Your task to perform on an android device: Do I have any events tomorrow? Image 0: 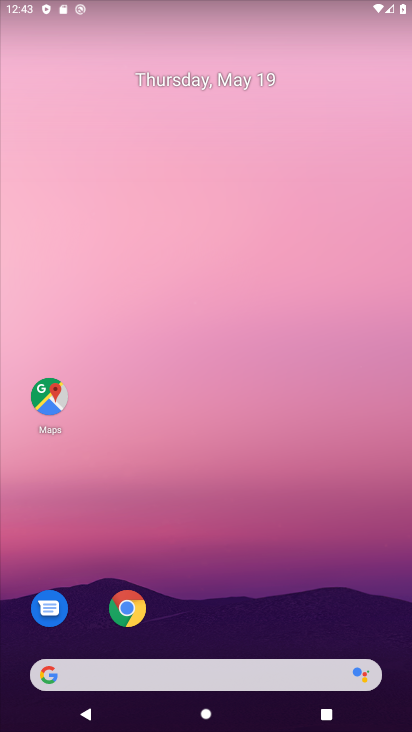
Step 0: drag from (243, 632) to (332, 13)
Your task to perform on an android device: Do I have any events tomorrow? Image 1: 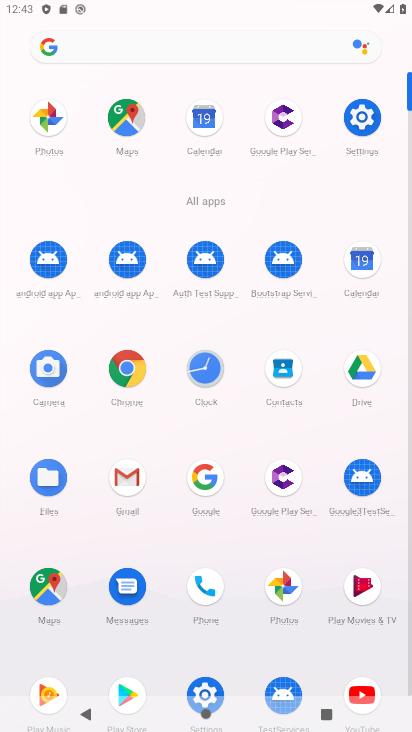
Step 1: click (373, 264)
Your task to perform on an android device: Do I have any events tomorrow? Image 2: 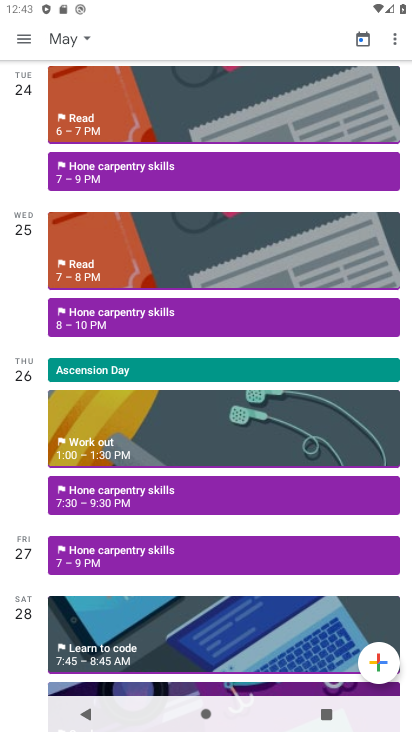
Step 2: drag from (78, 108) to (36, 551)
Your task to perform on an android device: Do I have any events tomorrow? Image 3: 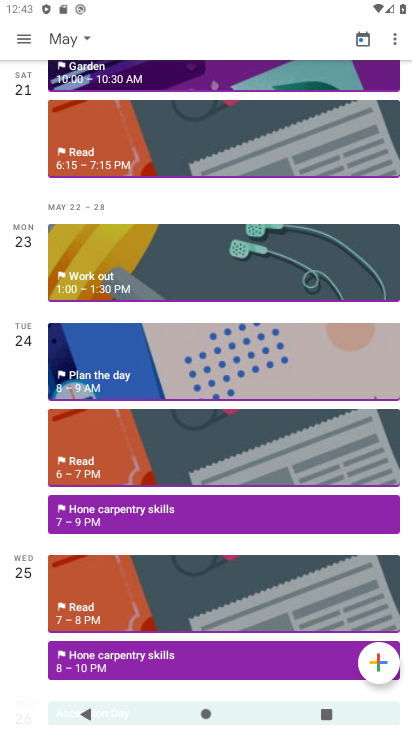
Step 3: click (28, 41)
Your task to perform on an android device: Do I have any events tomorrow? Image 4: 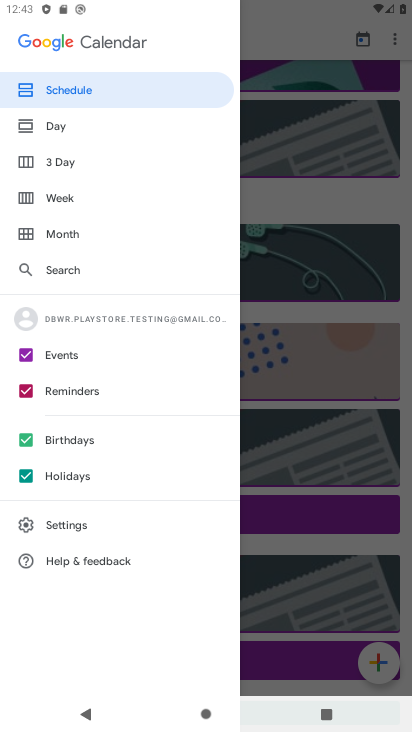
Step 4: click (84, 391)
Your task to perform on an android device: Do I have any events tomorrow? Image 5: 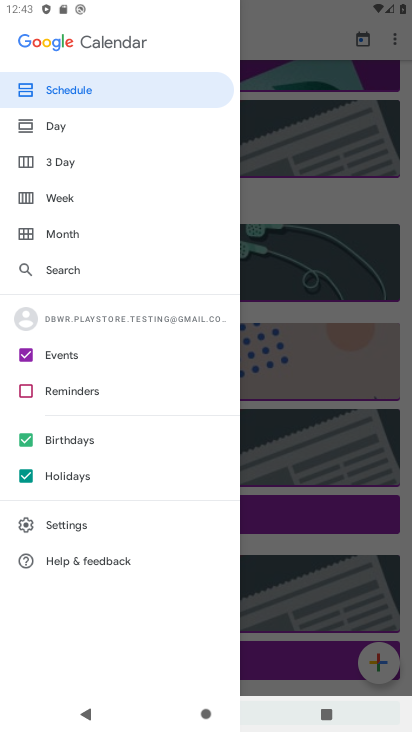
Step 5: click (78, 442)
Your task to perform on an android device: Do I have any events tomorrow? Image 6: 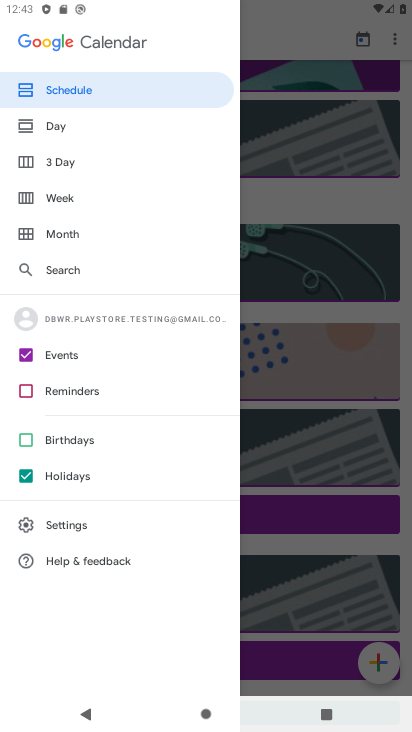
Step 6: click (69, 487)
Your task to perform on an android device: Do I have any events tomorrow? Image 7: 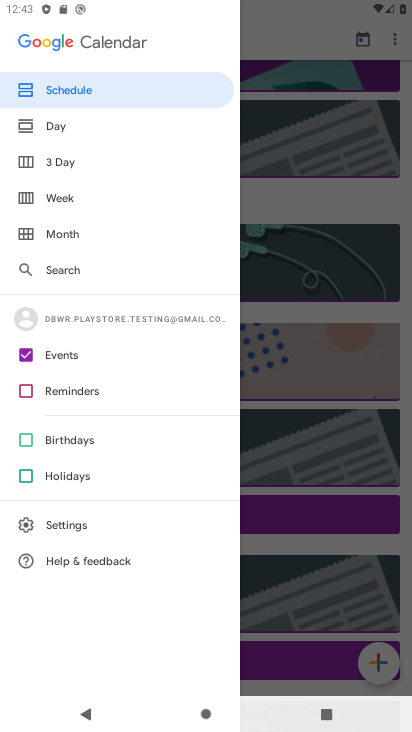
Step 7: click (55, 156)
Your task to perform on an android device: Do I have any events tomorrow? Image 8: 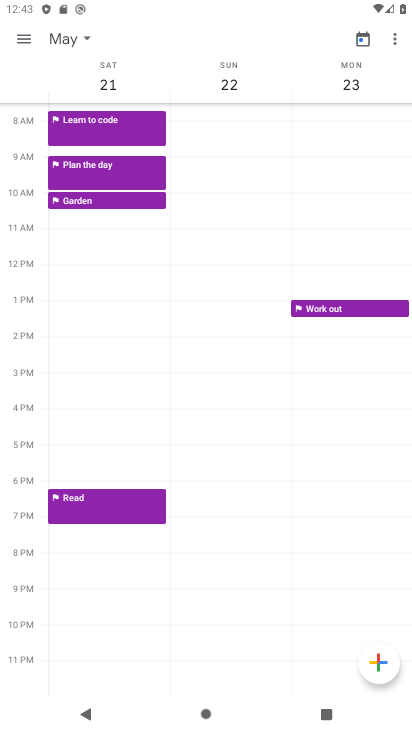
Step 8: task complete